Your task to perform on an android device: When is my next appointment? Image 0: 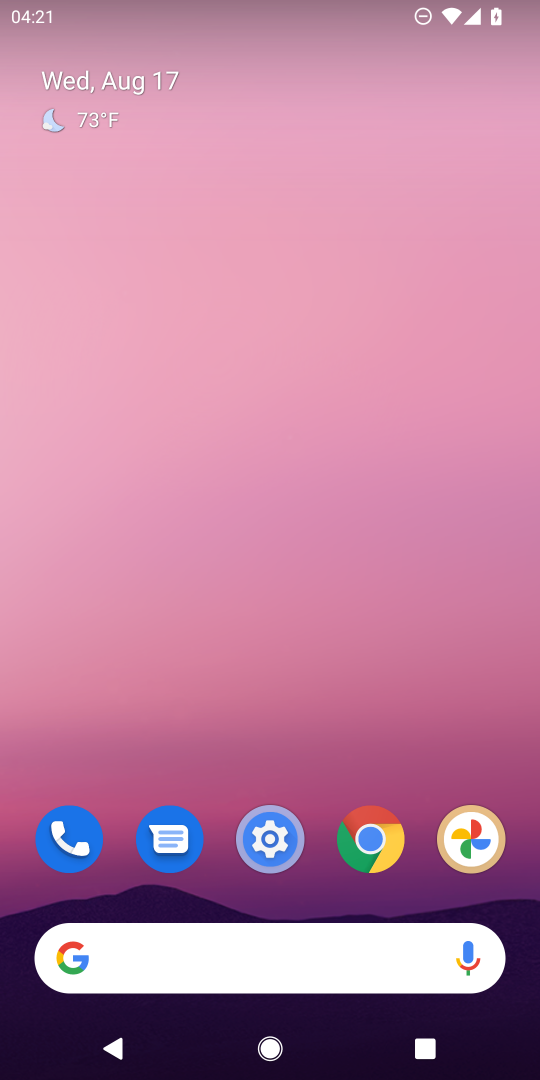
Step 0: drag from (343, 907) to (307, 165)
Your task to perform on an android device: When is my next appointment? Image 1: 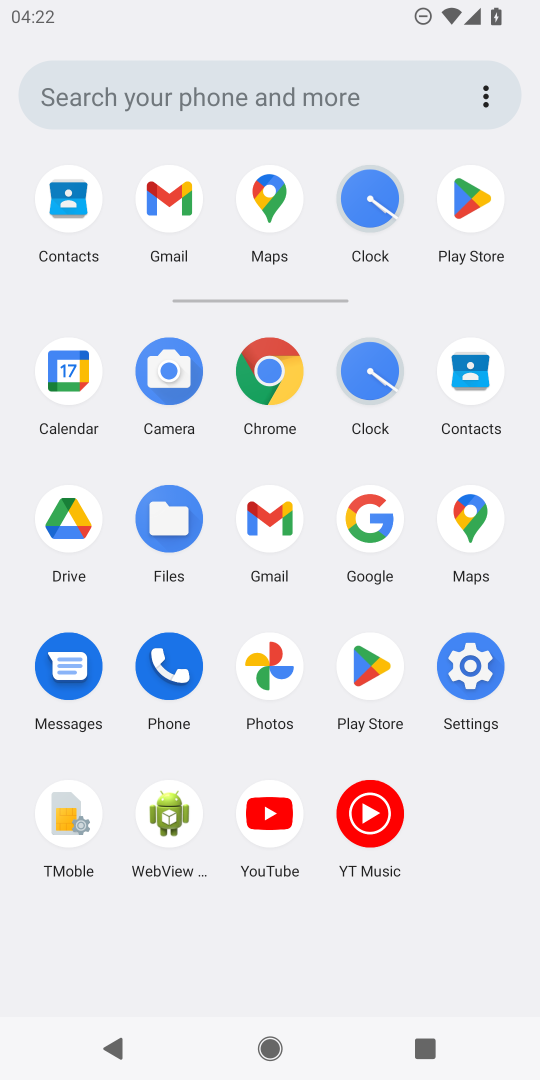
Step 1: click (69, 370)
Your task to perform on an android device: When is my next appointment? Image 2: 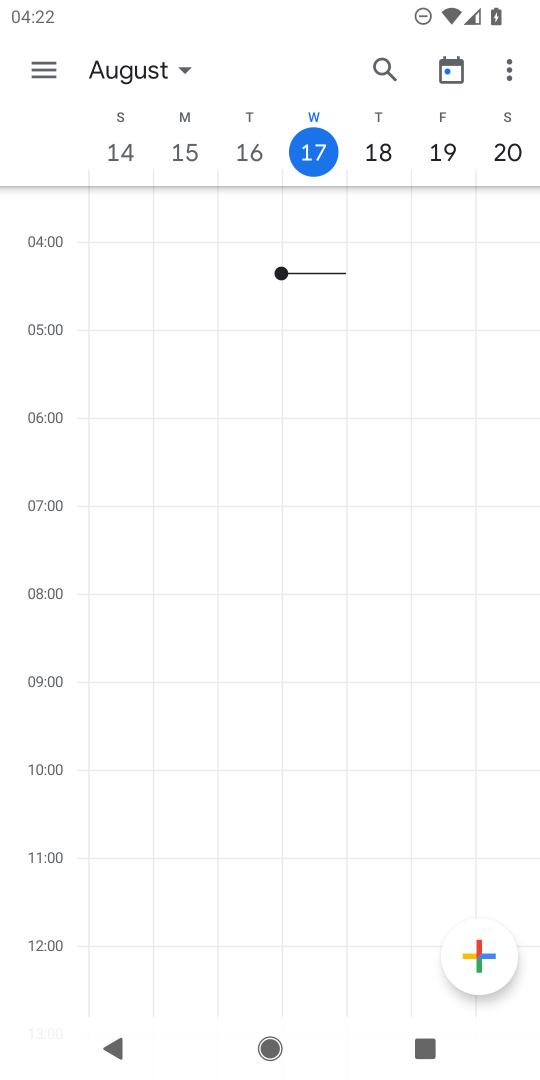
Step 2: click (375, 146)
Your task to perform on an android device: When is my next appointment? Image 3: 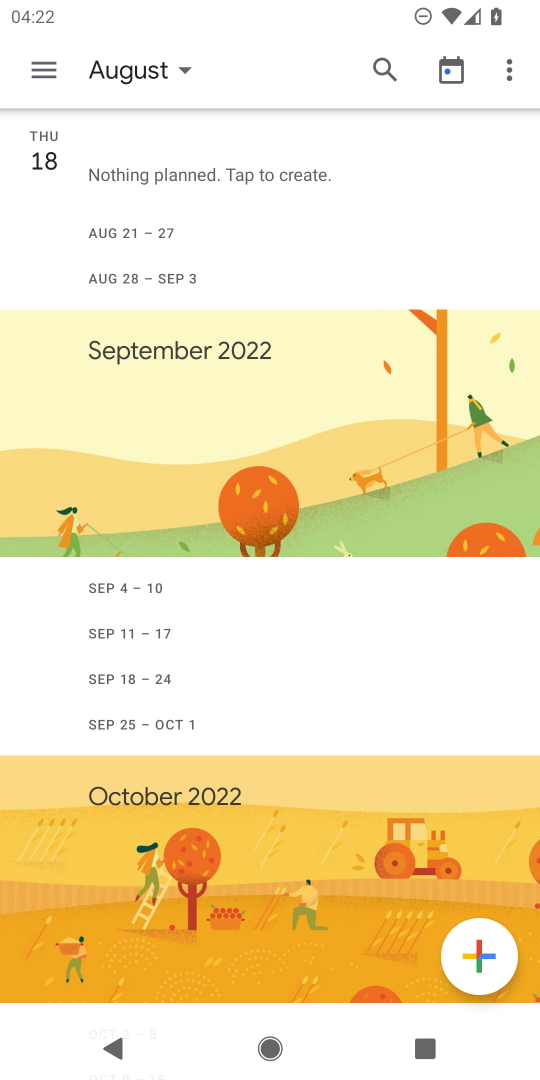
Step 3: task complete